Your task to perform on an android device: manage bookmarks in the chrome app Image 0: 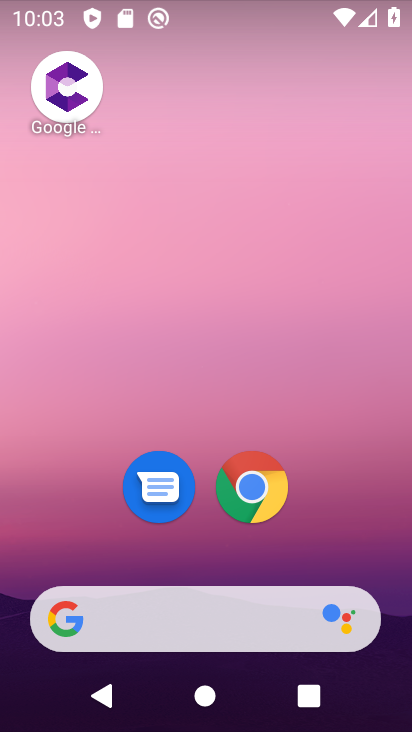
Step 0: click (261, 506)
Your task to perform on an android device: manage bookmarks in the chrome app Image 1: 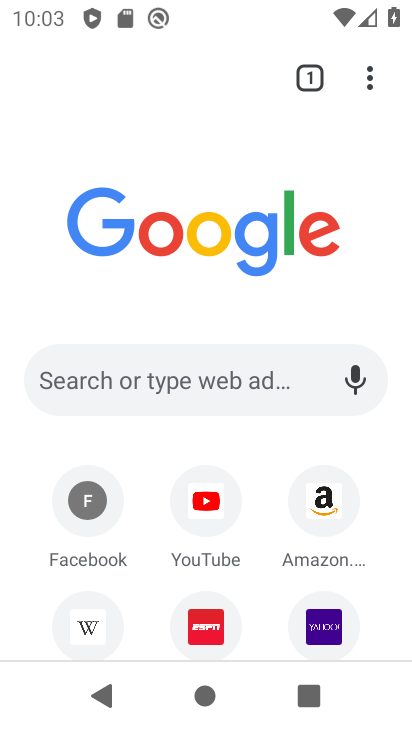
Step 1: click (375, 71)
Your task to perform on an android device: manage bookmarks in the chrome app Image 2: 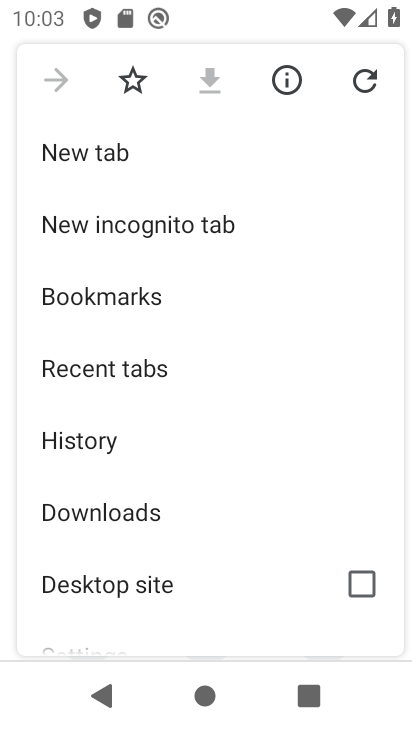
Step 2: click (138, 295)
Your task to perform on an android device: manage bookmarks in the chrome app Image 3: 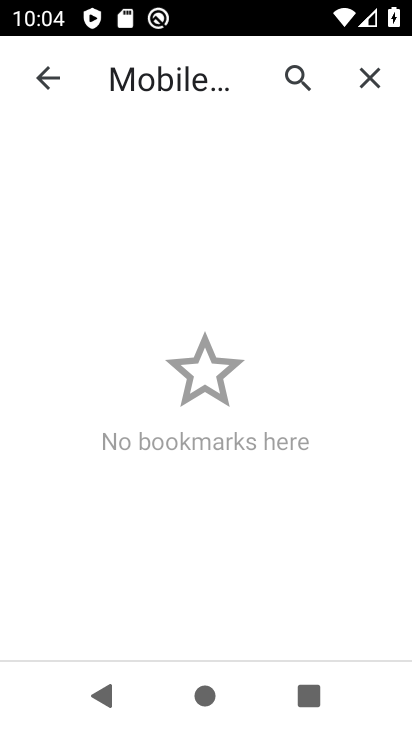
Step 3: task complete